Your task to perform on an android device: change notifications settings Image 0: 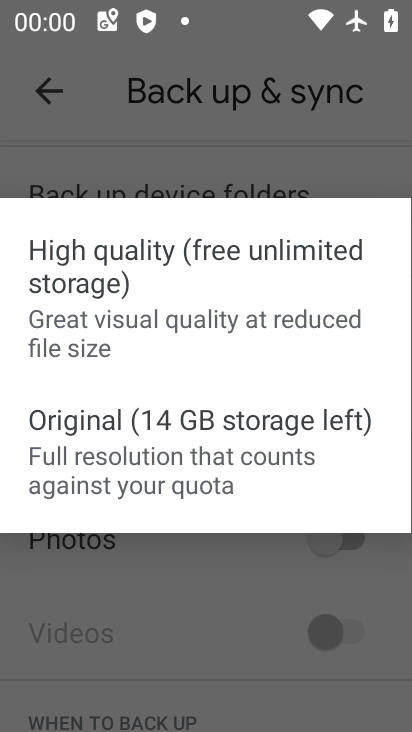
Step 0: press home button
Your task to perform on an android device: change notifications settings Image 1: 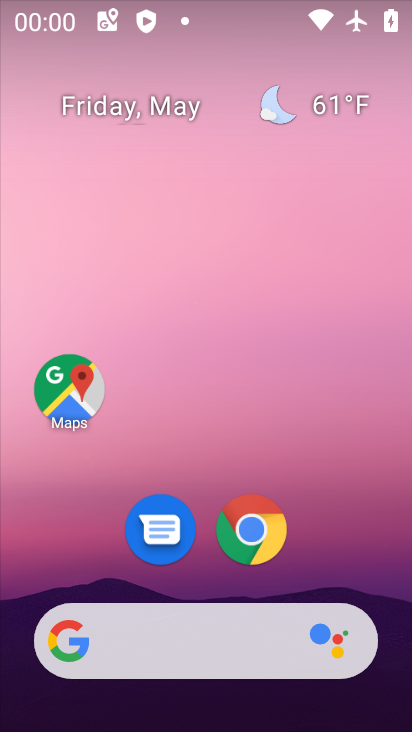
Step 1: drag from (375, 558) to (323, 109)
Your task to perform on an android device: change notifications settings Image 2: 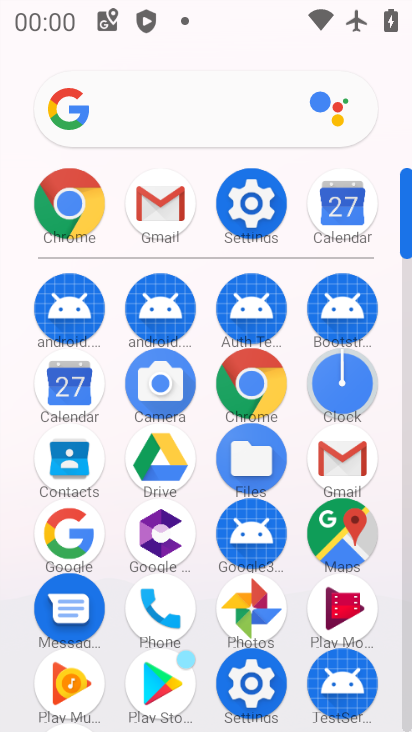
Step 2: click (275, 182)
Your task to perform on an android device: change notifications settings Image 3: 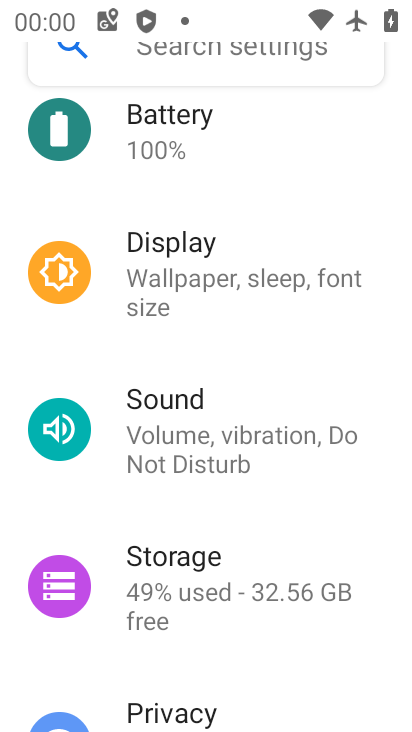
Step 3: drag from (221, 267) to (185, 712)
Your task to perform on an android device: change notifications settings Image 4: 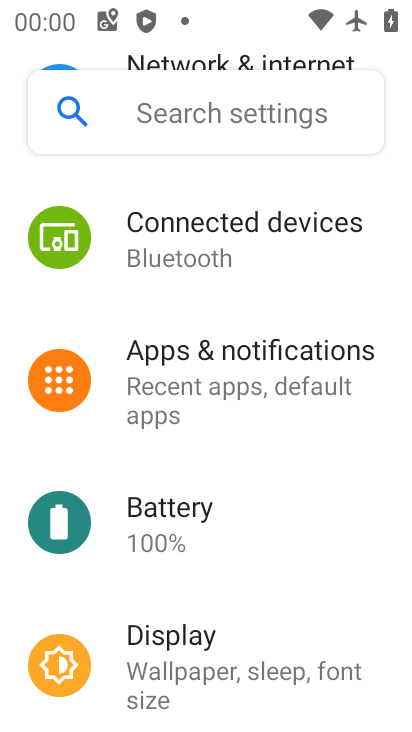
Step 4: click (241, 384)
Your task to perform on an android device: change notifications settings Image 5: 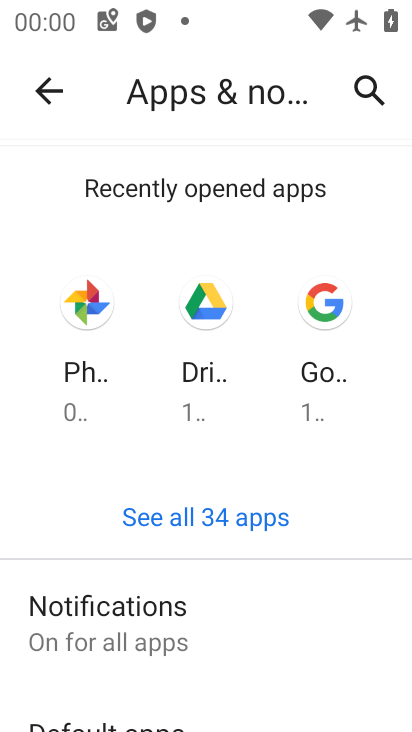
Step 5: click (168, 618)
Your task to perform on an android device: change notifications settings Image 6: 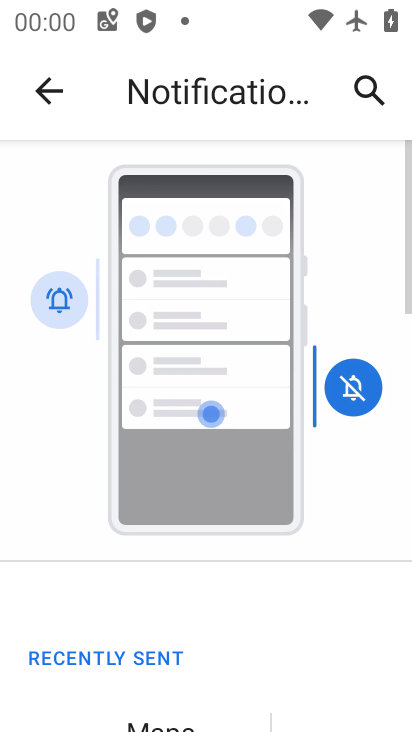
Step 6: task complete